Your task to perform on an android device: Open Chrome and go to the settings page Image 0: 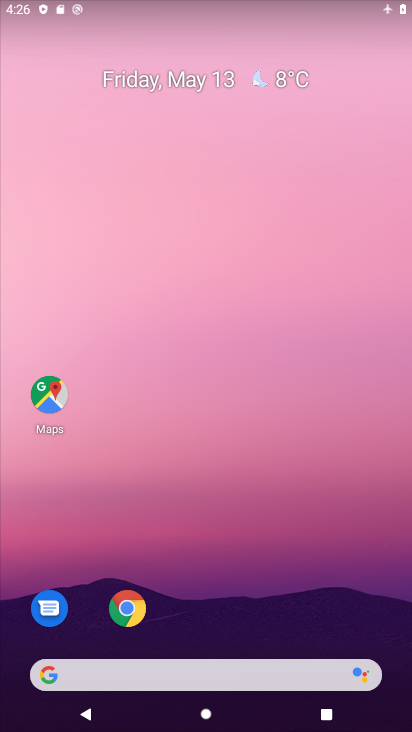
Step 0: click (129, 606)
Your task to perform on an android device: Open Chrome and go to the settings page Image 1: 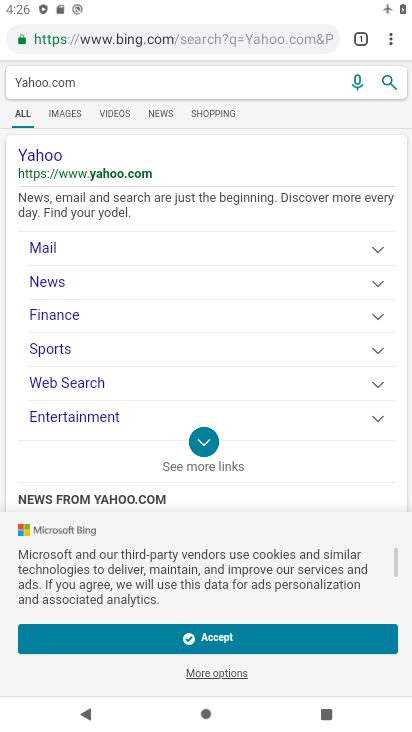
Step 1: click (393, 44)
Your task to perform on an android device: Open Chrome and go to the settings page Image 2: 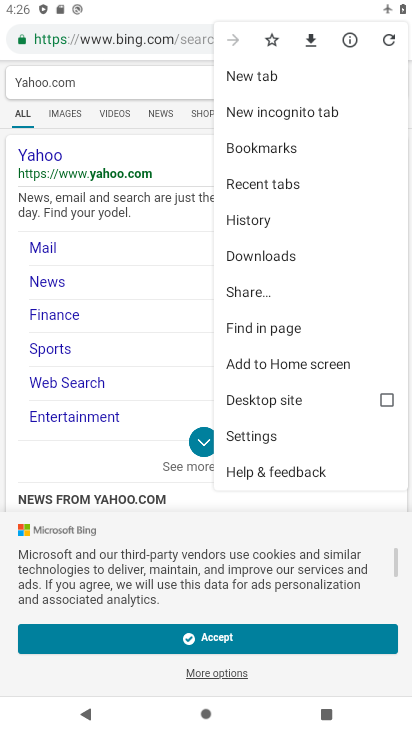
Step 2: click (254, 434)
Your task to perform on an android device: Open Chrome and go to the settings page Image 3: 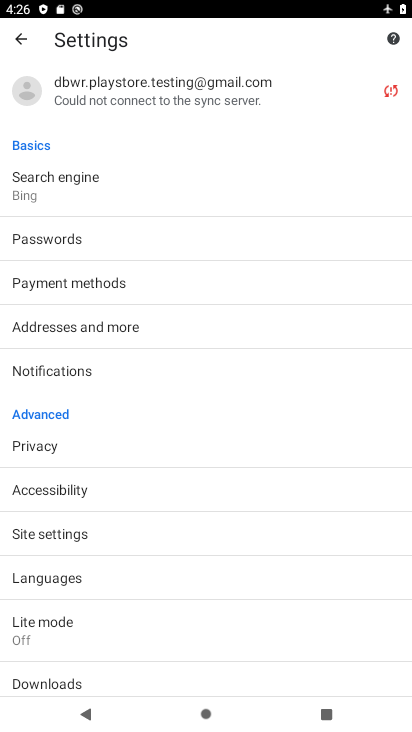
Step 3: task complete